Your task to perform on an android device: turn on notifications settings in the gmail app Image 0: 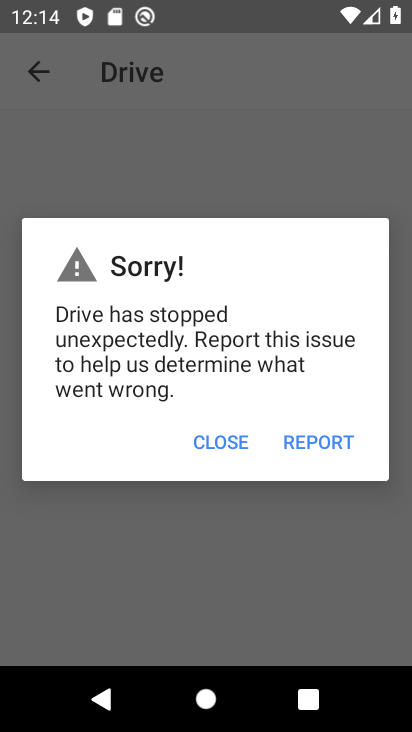
Step 0: click (220, 440)
Your task to perform on an android device: turn on notifications settings in the gmail app Image 1: 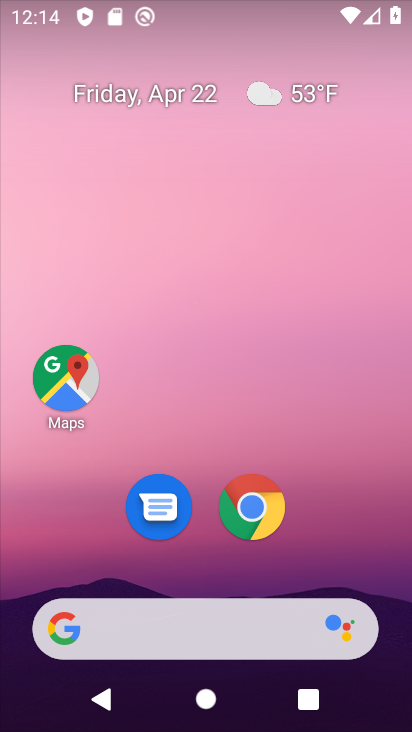
Step 1: drag from (239, 603) to (211, 53)
Your task to perform on an android device: turn on notifications settings in the gmail app Image 2: 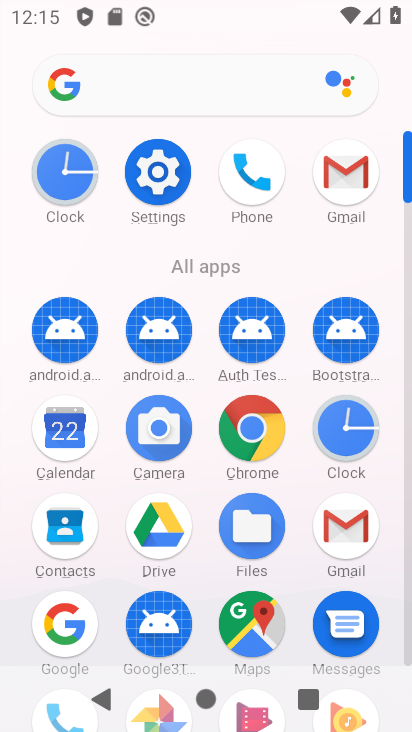
Step 2: click (339, 169)
Your task to perform on an android device: turn on notifications settings in the gmail app Image 3: 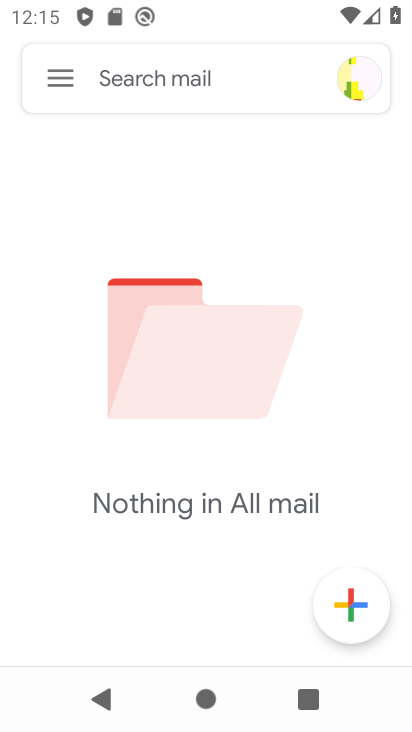
Step 3: click (64, 83)
Your task to perform on an android device: turn on notifications settings in the gmail app Image 4: 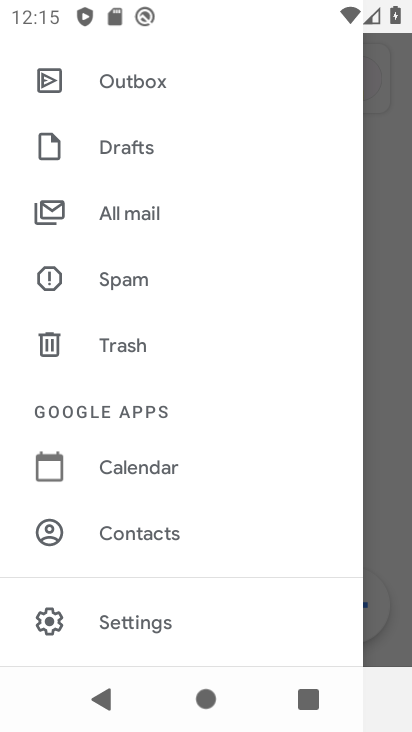
Step 4: click (123, 622)
Your task to perform on an android device: turn on notifications settings in the gmail app Image 5: 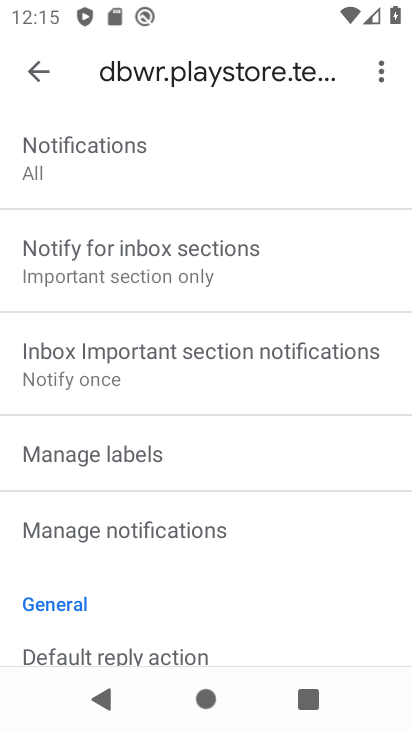
Step 5: click (122, 533)
Your task to perform on an android device: turn on notifications settings in the gmail app Image 6: 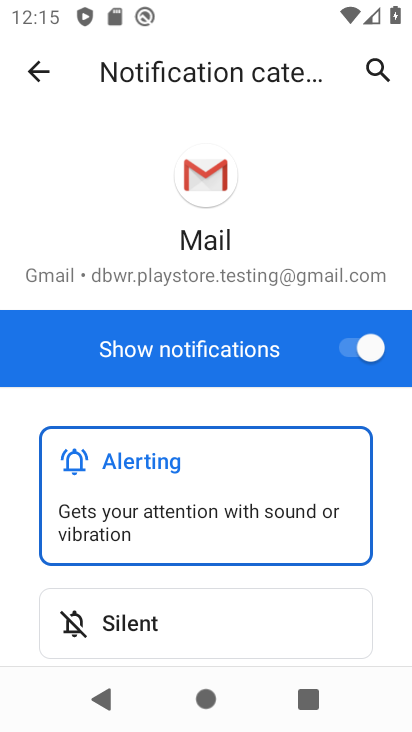
Step 6: task complete